Your task to perform on an android device: Play the last video I watched on Youtube Image 0: 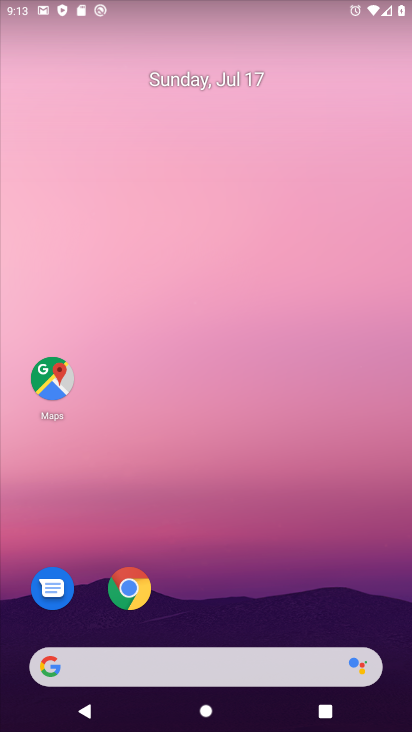
Step 0: drag from (287, 522) to (260, 313)
Your task to perform on an android device: Play the last video I watched on Youtube Image 1: 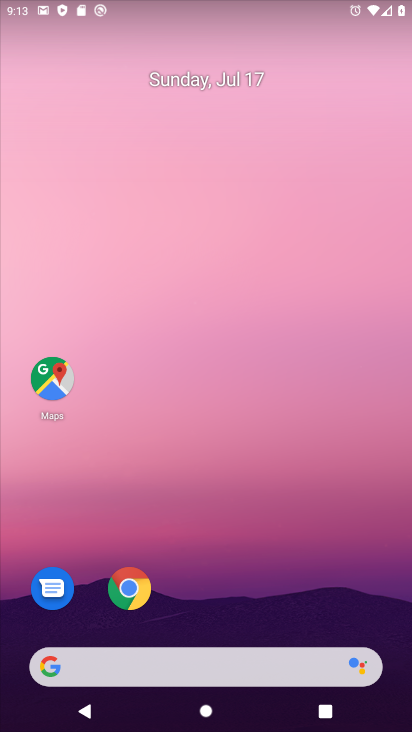
Step 1: drag from (245, 537) to (245, 79)
Your task to perform on an android device: Play the last video I watched on Youtube Image 2: 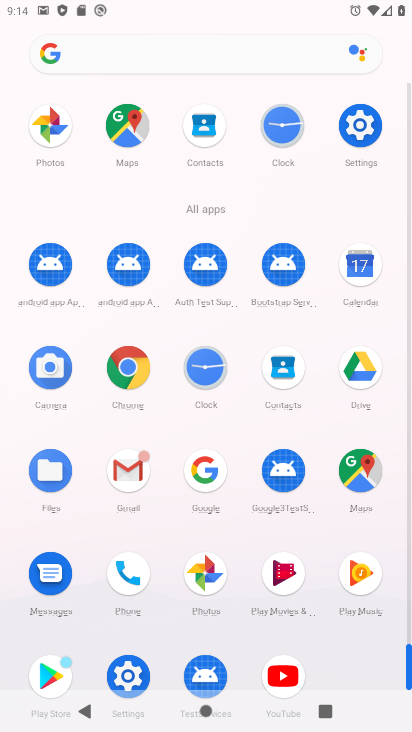
Step 2: click (267, 677)
Your task to perform on an android device: Play the last video I watched on Youtube Image 3: 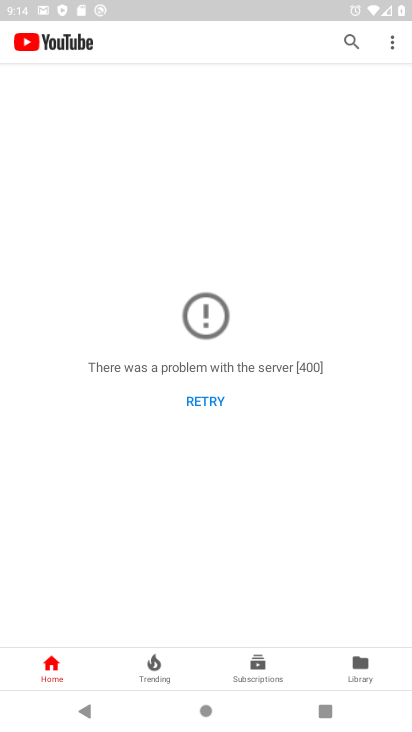
Step 3: click (209, 373)
Your task to perform on an android device: Play the last video I watched on Youtube Image 4: 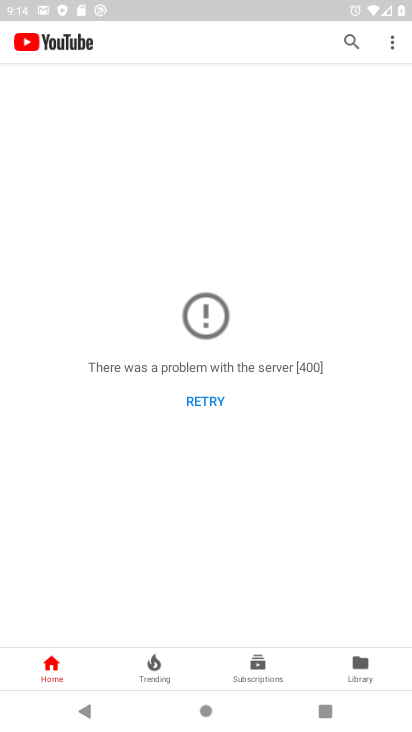
Step 4: click (210, 373)
Your task to perform on an android device: Play the last video I watched on Youtube Image 5: 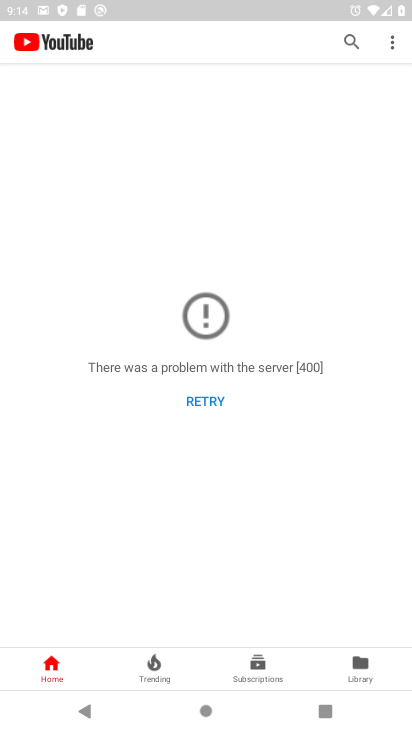
Step 5: click (210, 373)
Your task to perform on an android device: Play the last video I watched on Youtube Image 6: 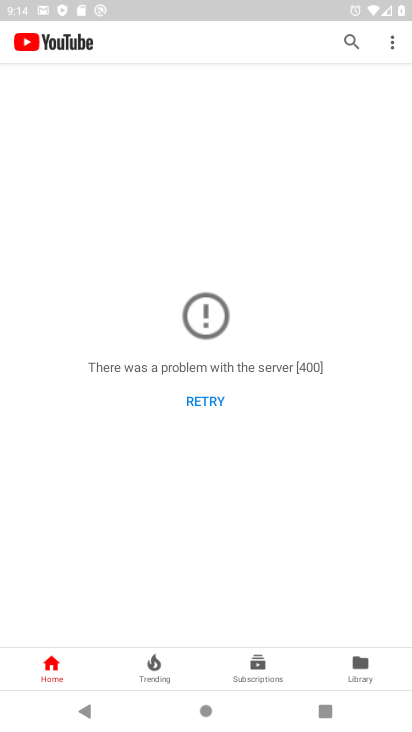
Step 6: task complete